Your task to perform on an android device: turn on data saver in the chrome app Image 0: 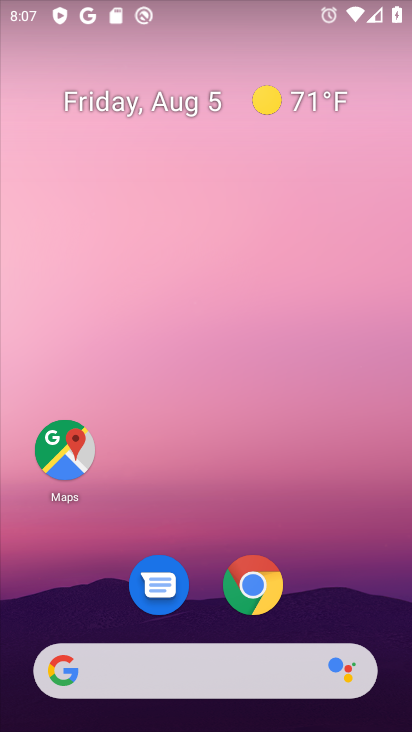
Step 0: click (254, 588)
Your task to perform on an android device: turn on data saver in the chrome app Image 1: 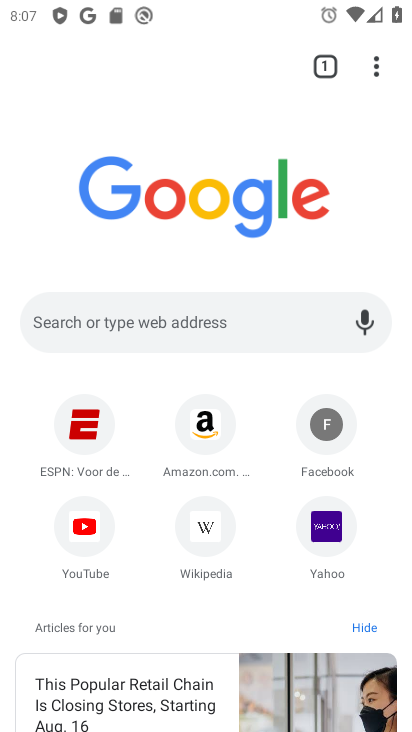
Step 1: click (374, 68)
Your task to perform on an android device: turn on data saver in the chrome app Image 2: 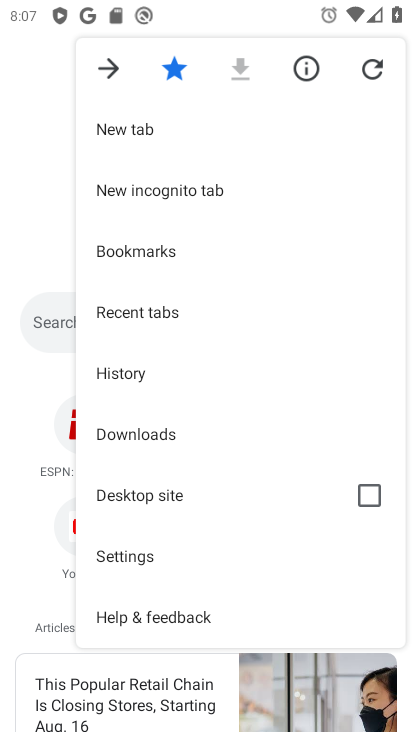
Step 2: click (134, 554)
Your task to perform on an android device: turn on data saver in the chrome app Image 3: 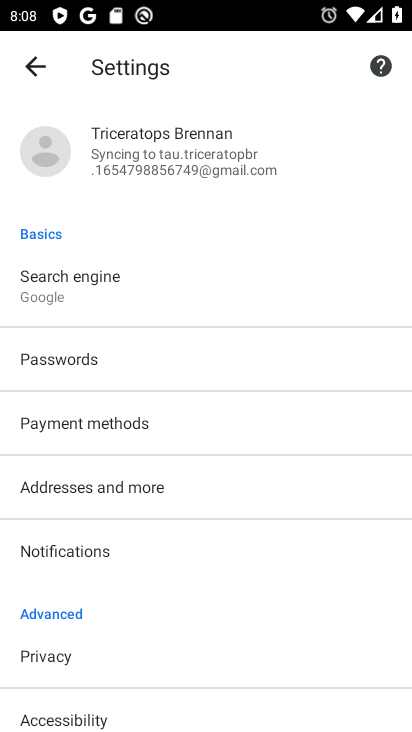
Step 3: drag from (193, 548) to (189, 214)
Your task to perform on an android device: turn on data saver in the chrome app Image 4: 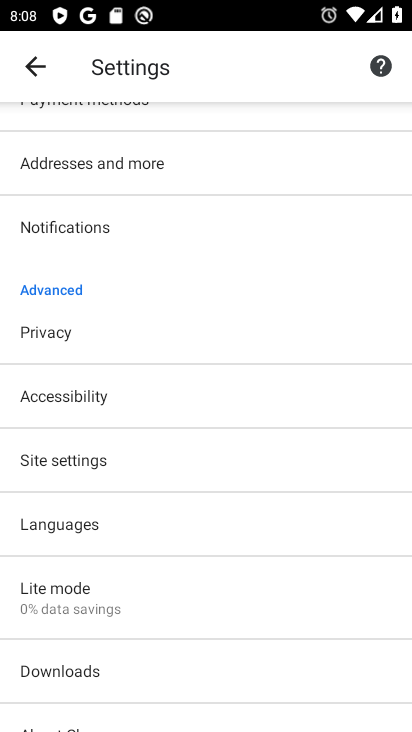
Step 4: click (118, 597)
Your task to perform on an android device: turn on data saver in the chrome app Image 5: 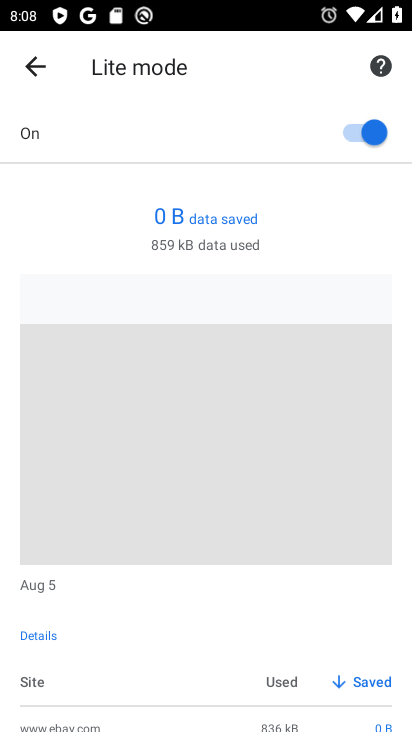
Step 5: task complete